Your task to perform on an android device: Open the stopwatch Image 0: 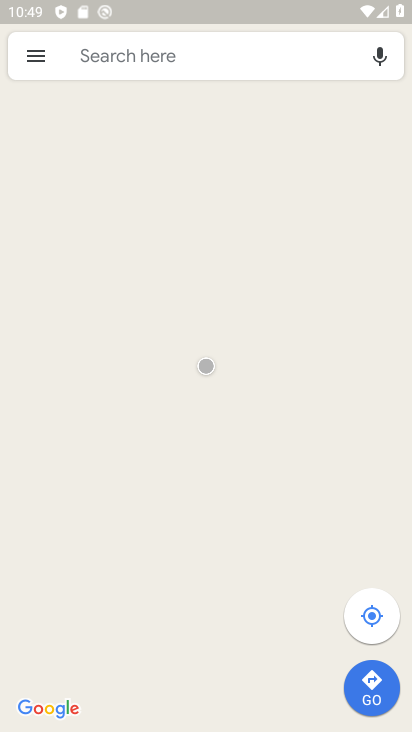
Step 0: press home button
Your task to perform on an android device: Open the stopwatch Image 1: 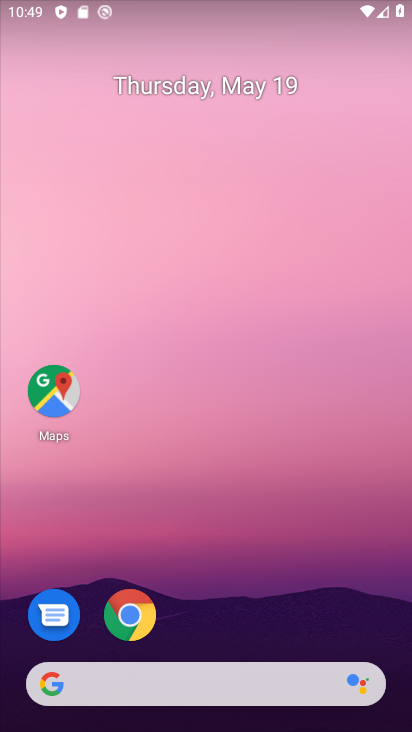
Step 1: drag from (262, 583) to (169, 3)
Your task to perform on an android device: Open the stopwatch Image 2: 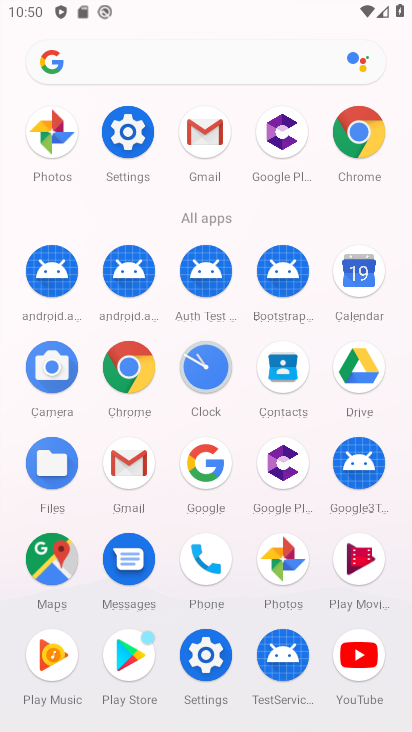
Step 2: click (205, 365)
Your task to perform on an android device: Open the stopwatch Image 3: 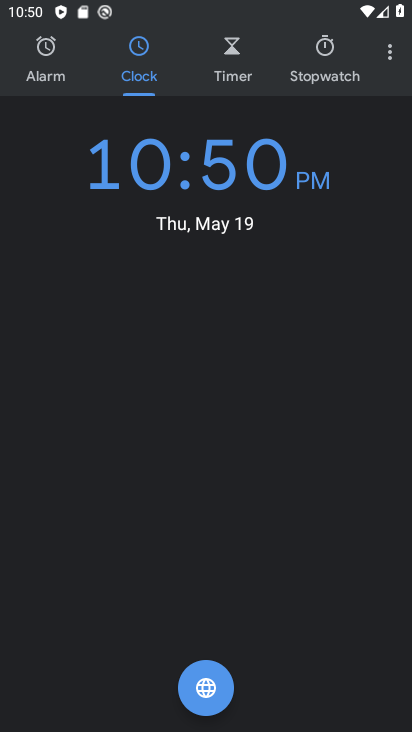
Step 3: click (332, 32)
Your task to perform on an android device: Open the stopwatch Image 4: 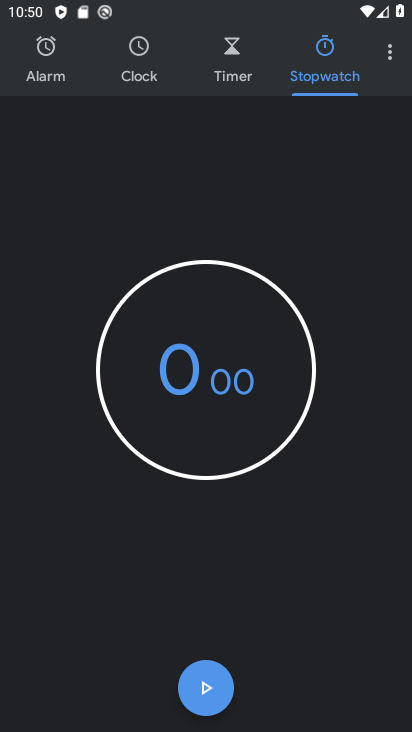
Step 4: task complete